Your task to perform on an android device: allow cookies in the chrome app Image 0: 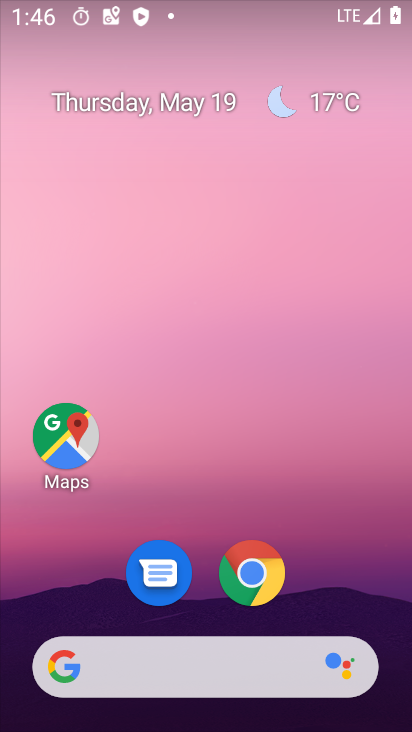
Step 0: click (246, 577)
Your task to perform on an android device: allow cookies in the chrome app Image 1: 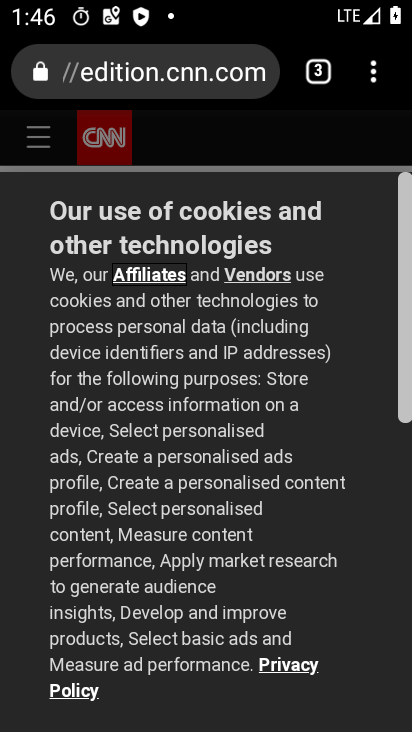
Step 1: drag from (376, 69) to (130, 562)
Your task to perform on an android device: allow cookies in the chrome app Image 2: 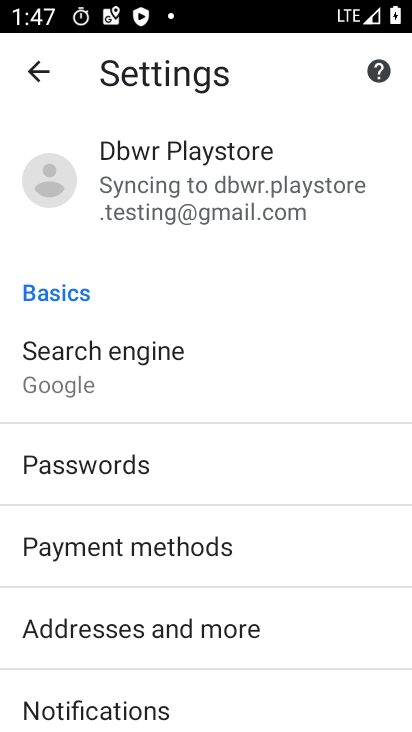
Step 2: drag from (230, 613) to (256, 237)
Your task to perform on an android device: allow cookies in the chrome app Image 3: 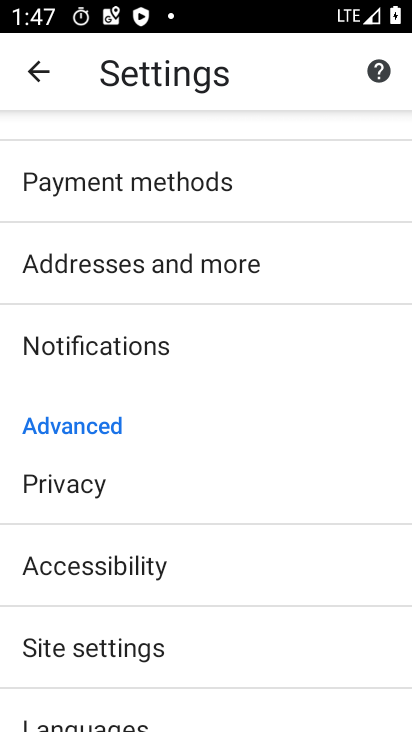
Step 3: click (100, 638)
Your task to perform on an android device: allow cookies in the chrome app Image 4: 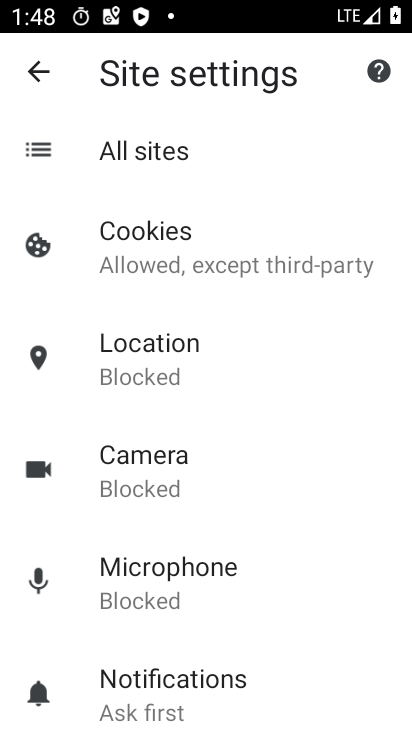
Step 4: click (169, 251)
Your task to perform on an android device: allow cookies in the chrome app Image 5: 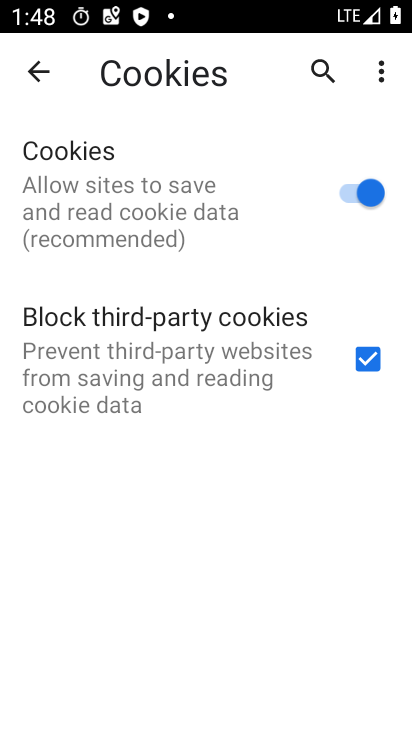
Step 5: task complete